Your task to perform on an android device: Go to calendar. Show me events next week Image 0: 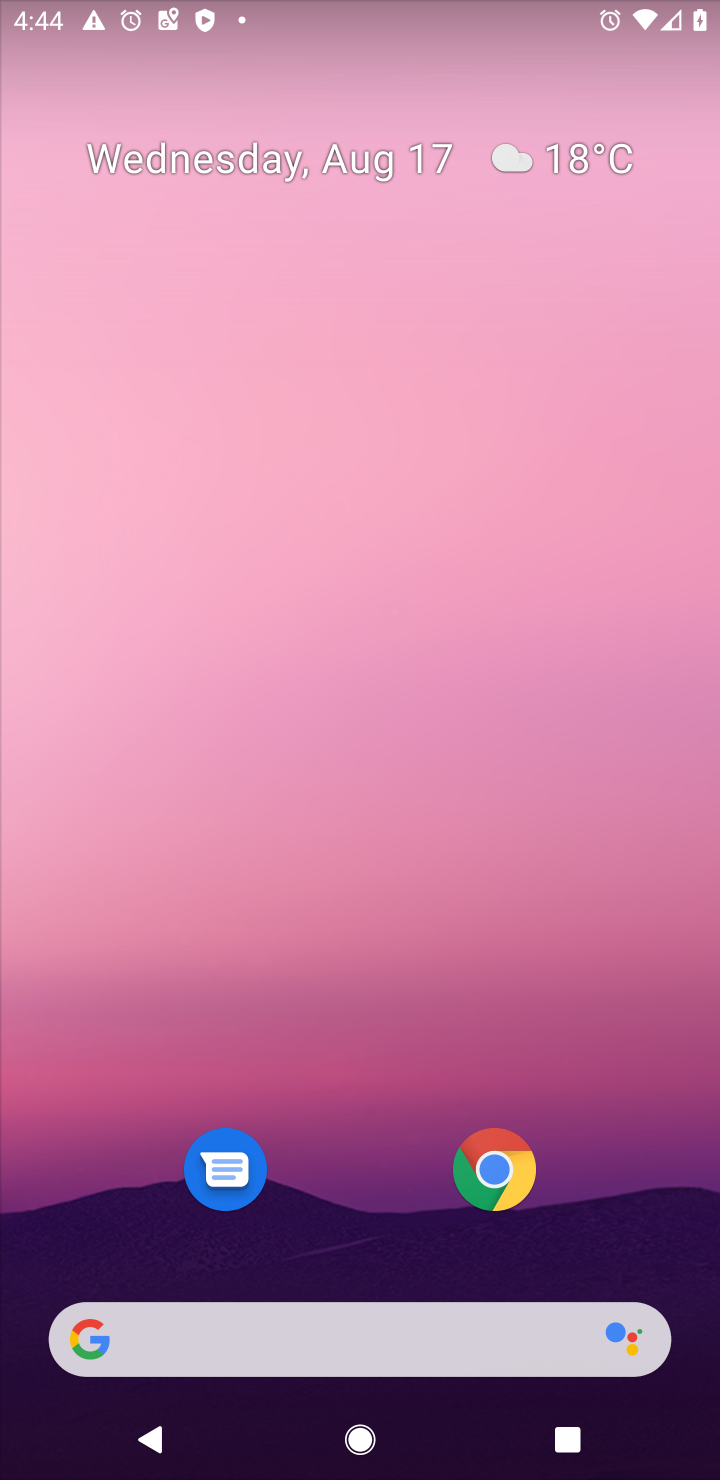
Step 0: press home button
Your task to perform on an android device: Go to calendar. Show me events next week Image 1: 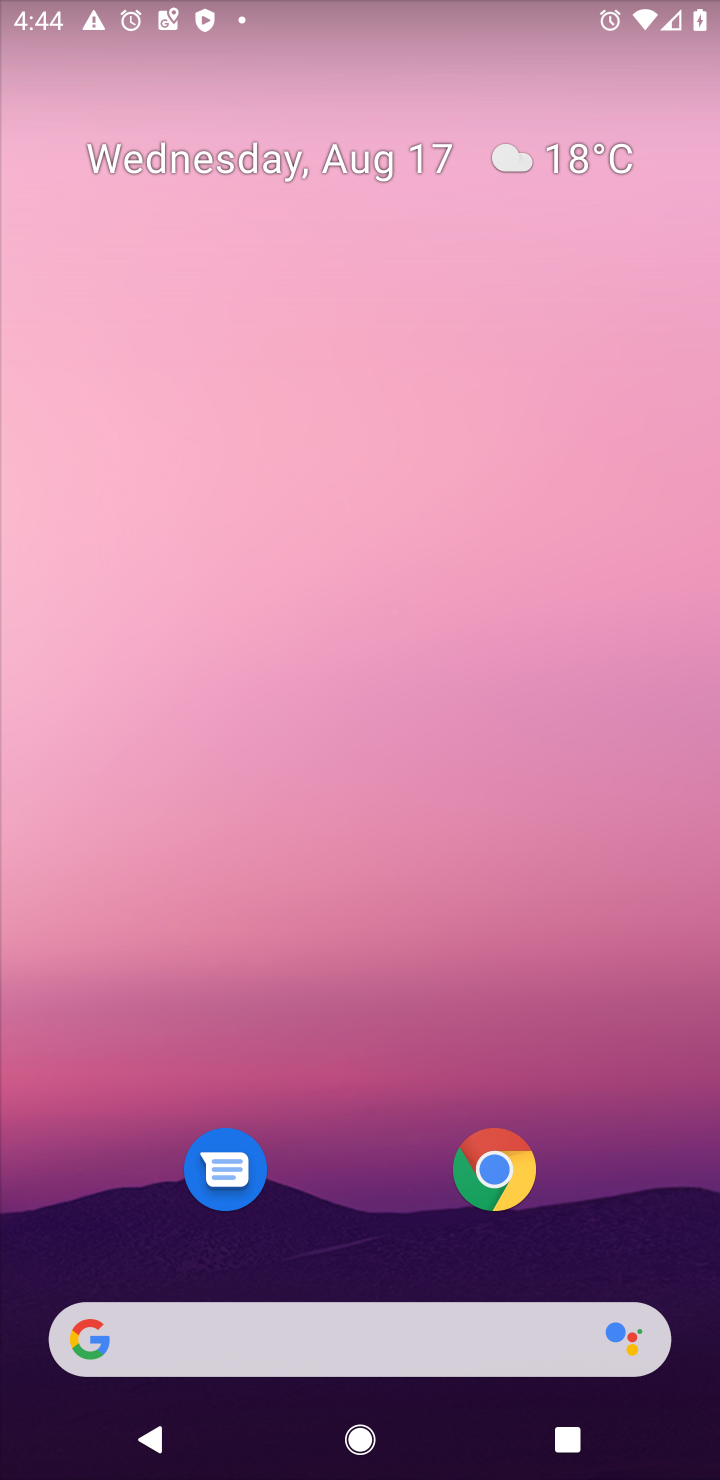
Step 1: drag from (438, 1196) to (445, 193)
Your task to perform on an android device: Go to calendar. Show me events next week Image 2: 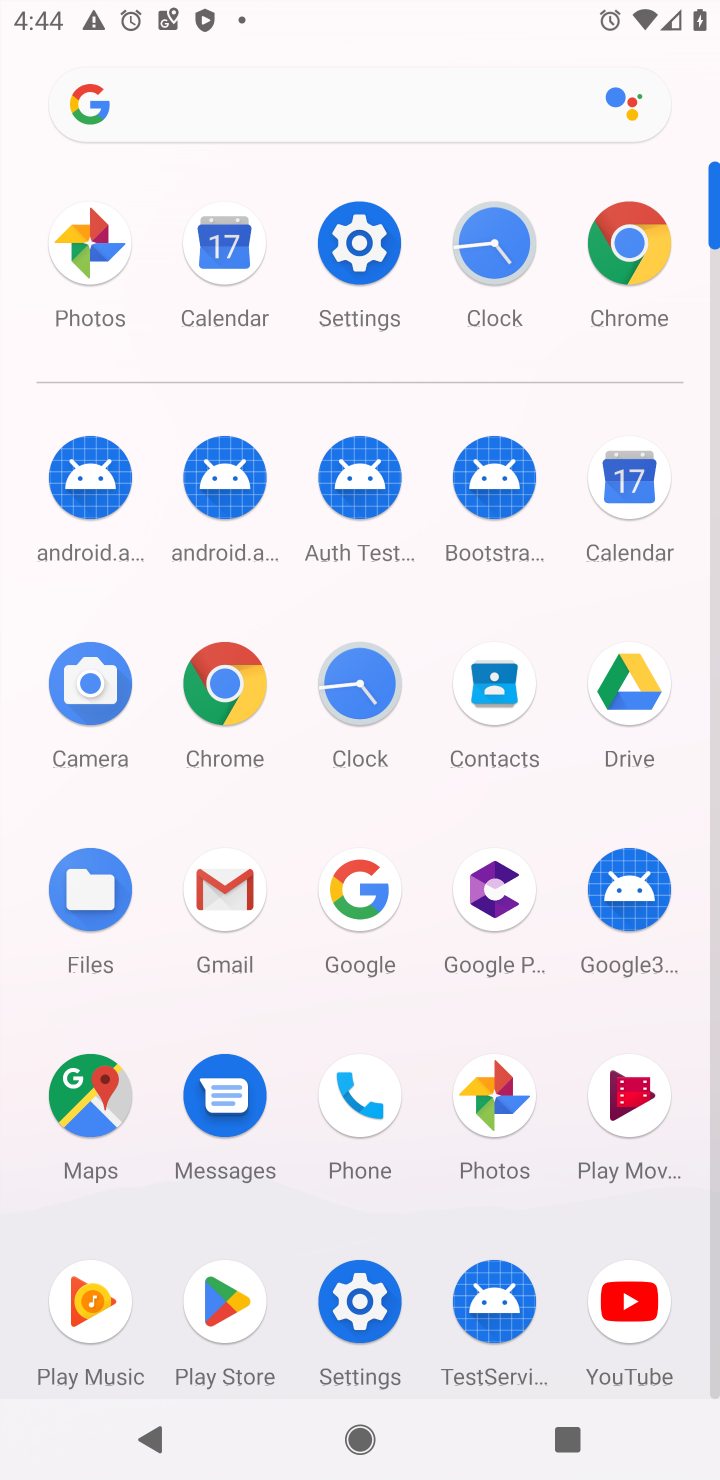
Step 2: click (624, 467)
Your task to perform on an android device: Go to calendar. Show me events next week Image 3: 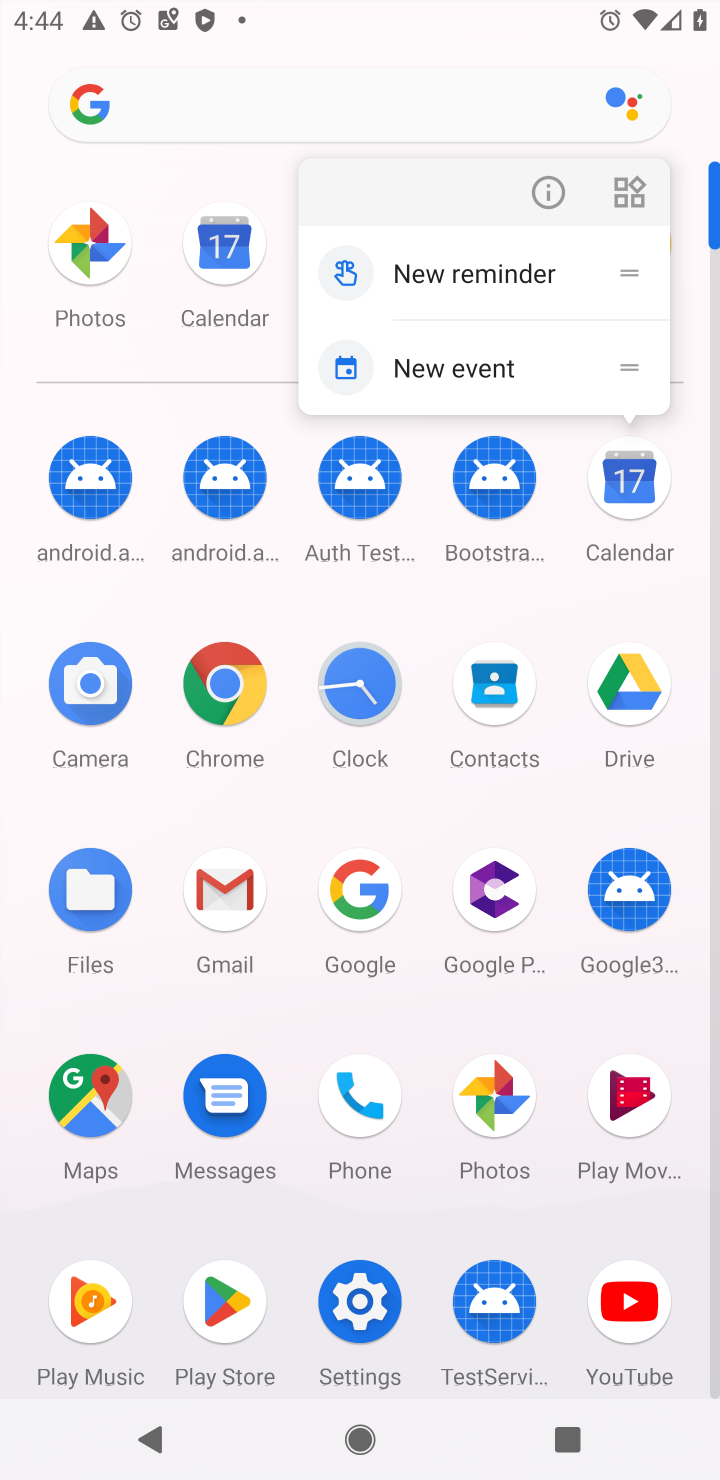
Step 3: click (630, 458)
Your task to perform on an android device: Go to calendar. Show me events next week Image 4: 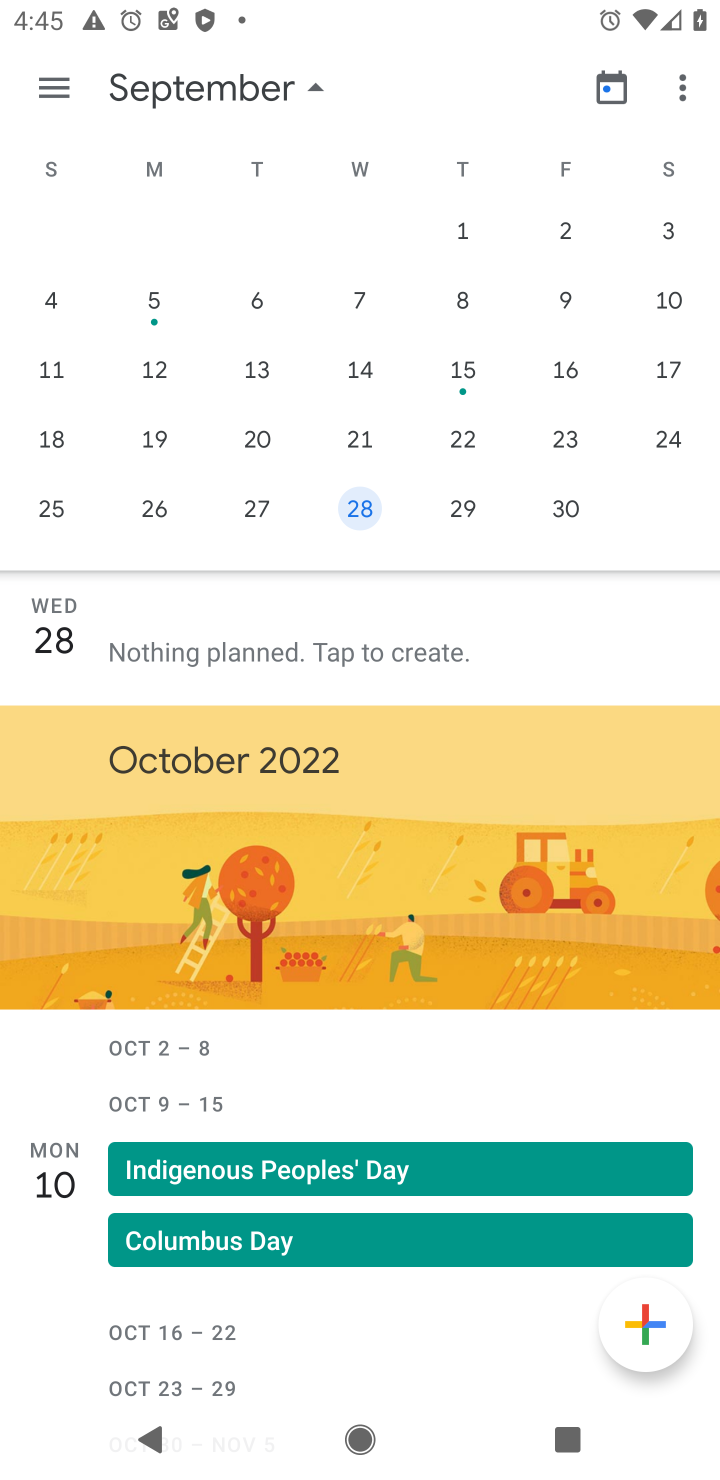
Step 4: drag from (603, 387) to (453, 288)
Your task to perform on an android device: Go to calendar. Show me events next week Image 5: 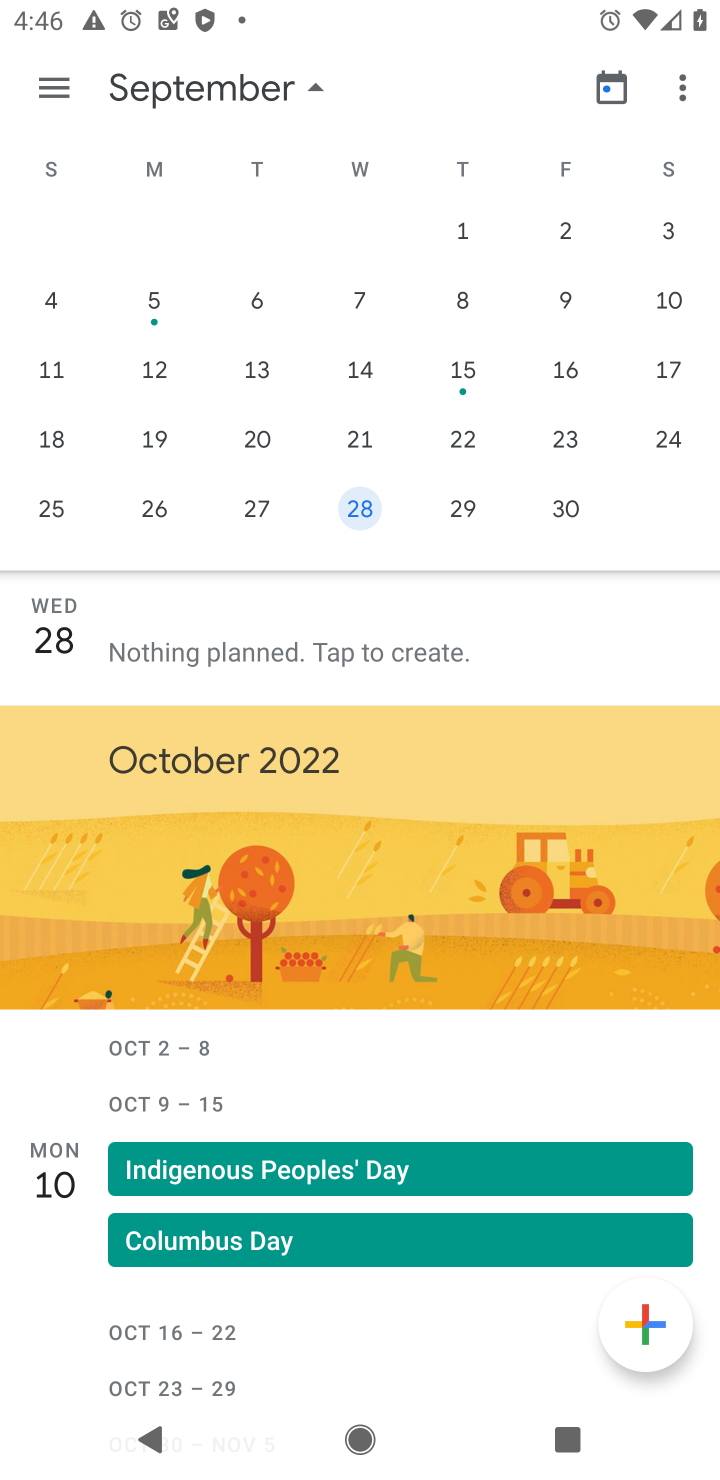
Step 5: drag from (101, 354) to (712, 289)
Your task to perform on an android device: Go to calendar. Show me events next week Image 6: 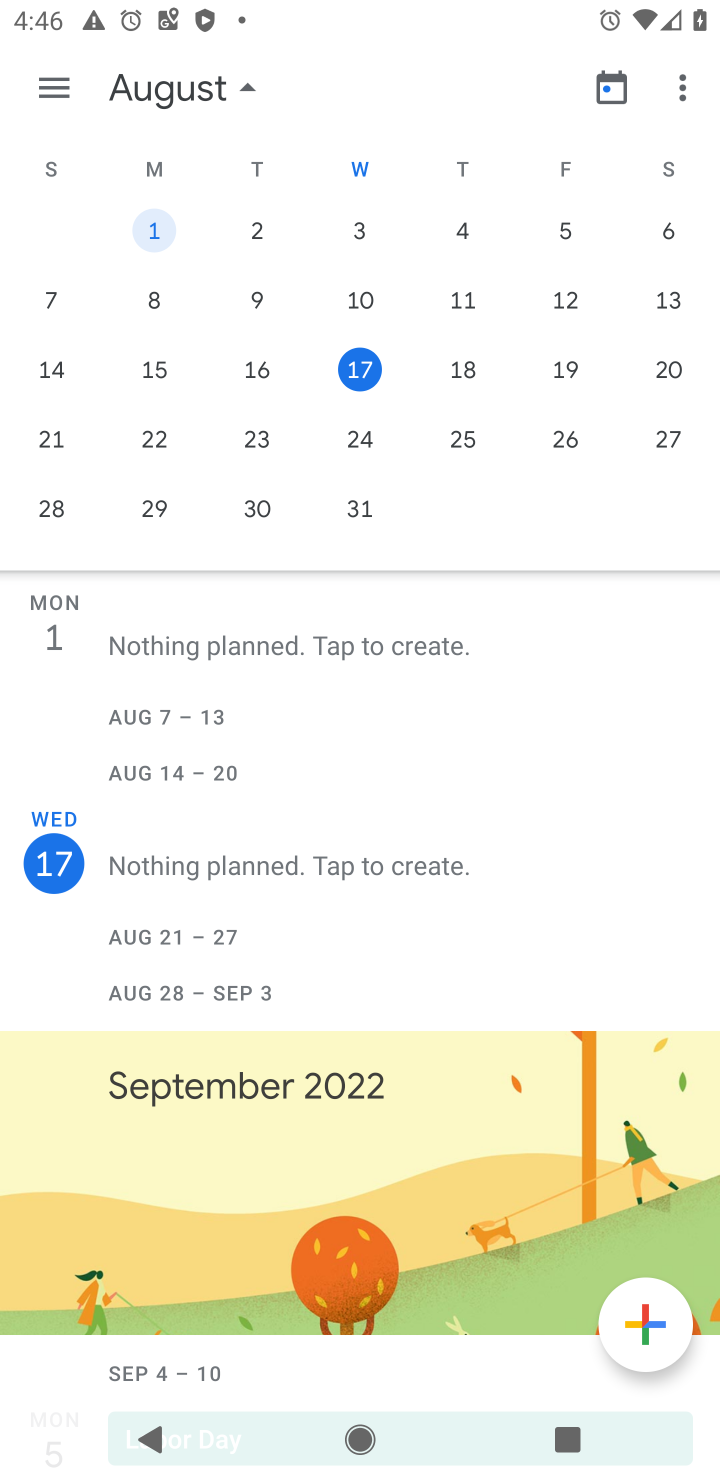
Step 6: click (369, 438)
Your task to perform on an android device: Go to calendar. Show me events next week Image 7: 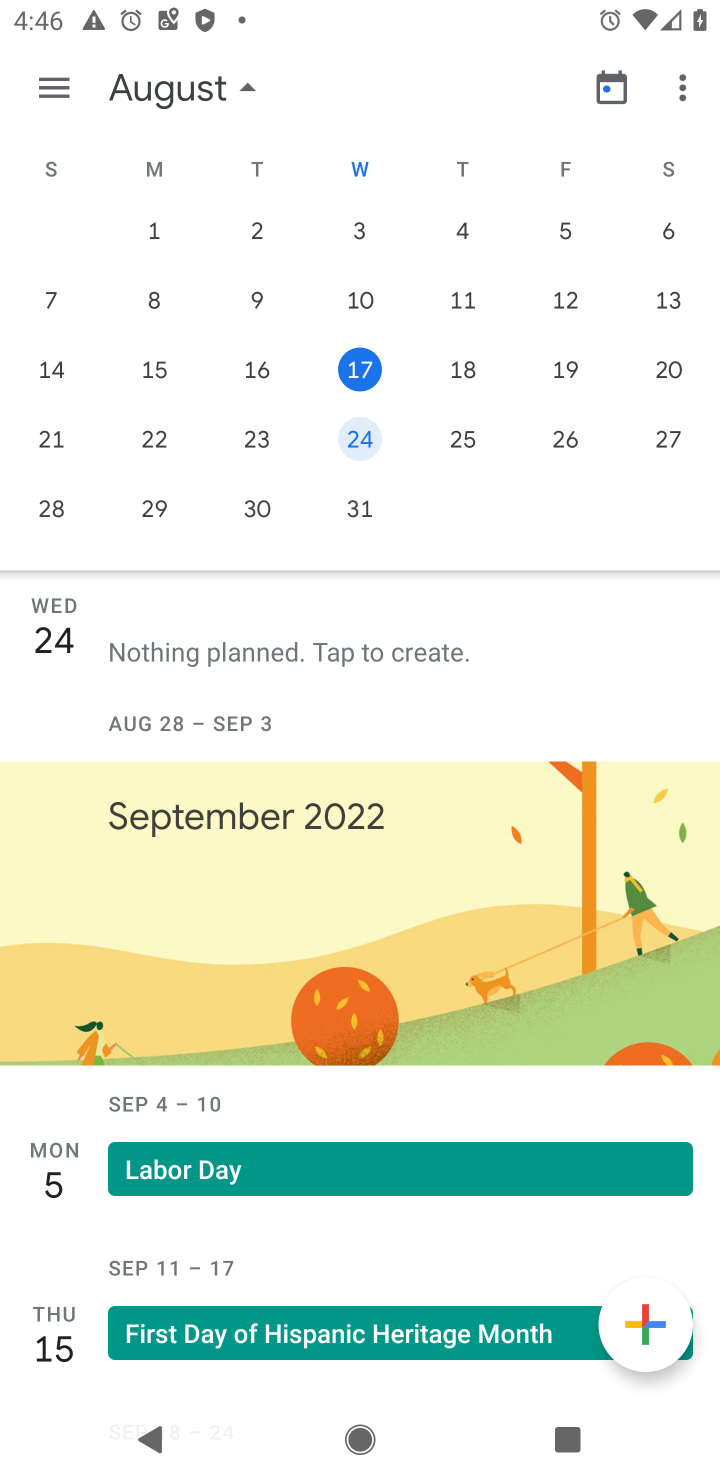
Step 7: task complete